Your task to perform on an android device: turn off location Image 0: 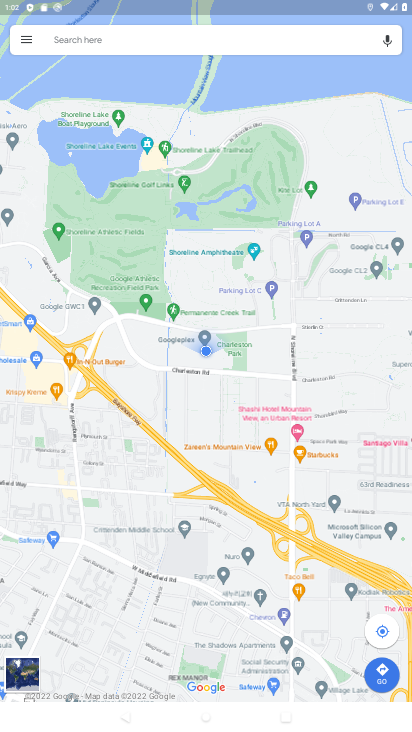
Step 0: press home button
Your task to perform on an android device: turn off location Image 1: 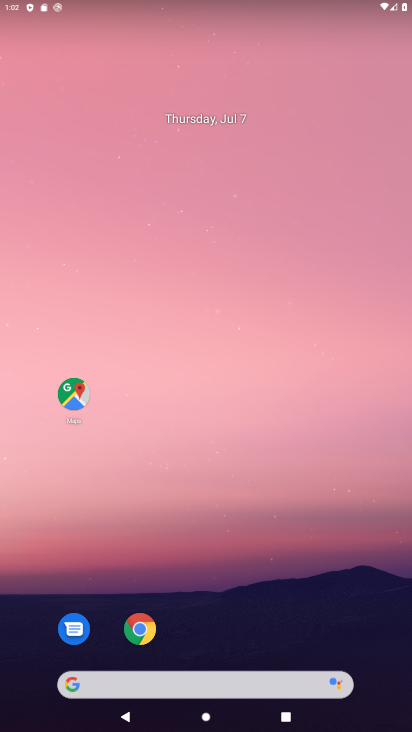
Step 1: drag from (216, 580) to (252, 76)
Your task to perform on an android device: turn off location Image 2: 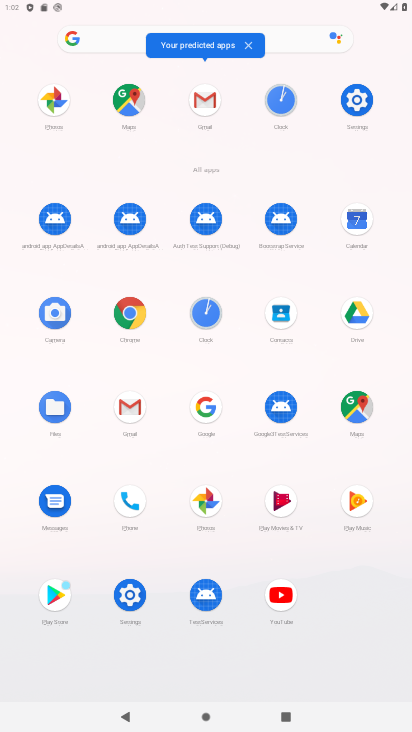
Step 2: click (353, 101)
Your task to perform on an android device: turn off location Image 3: 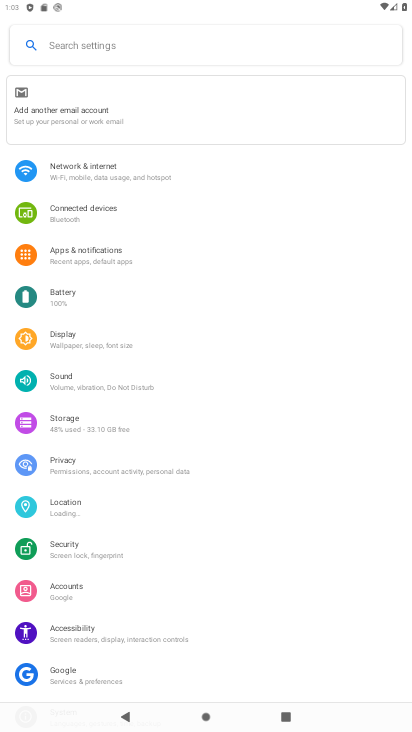
Step 3: click (94, 510)
Your task to perform on an android device: turn off location Image 4: 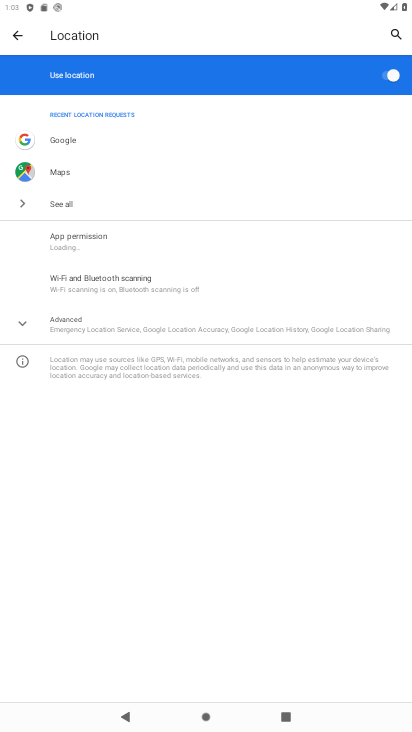
Step 4: click (375, 71)
Your task to perform on an android device: turn off location Image 5: 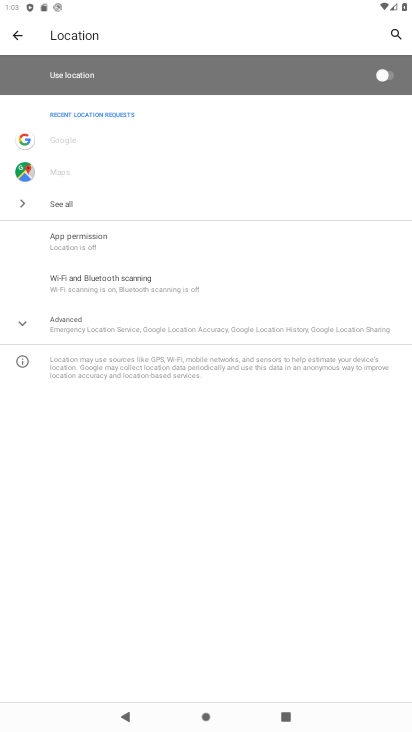
Step 5: task complete